Your task to perform on an android device: manage bookmarks in the chrome app Image 0: 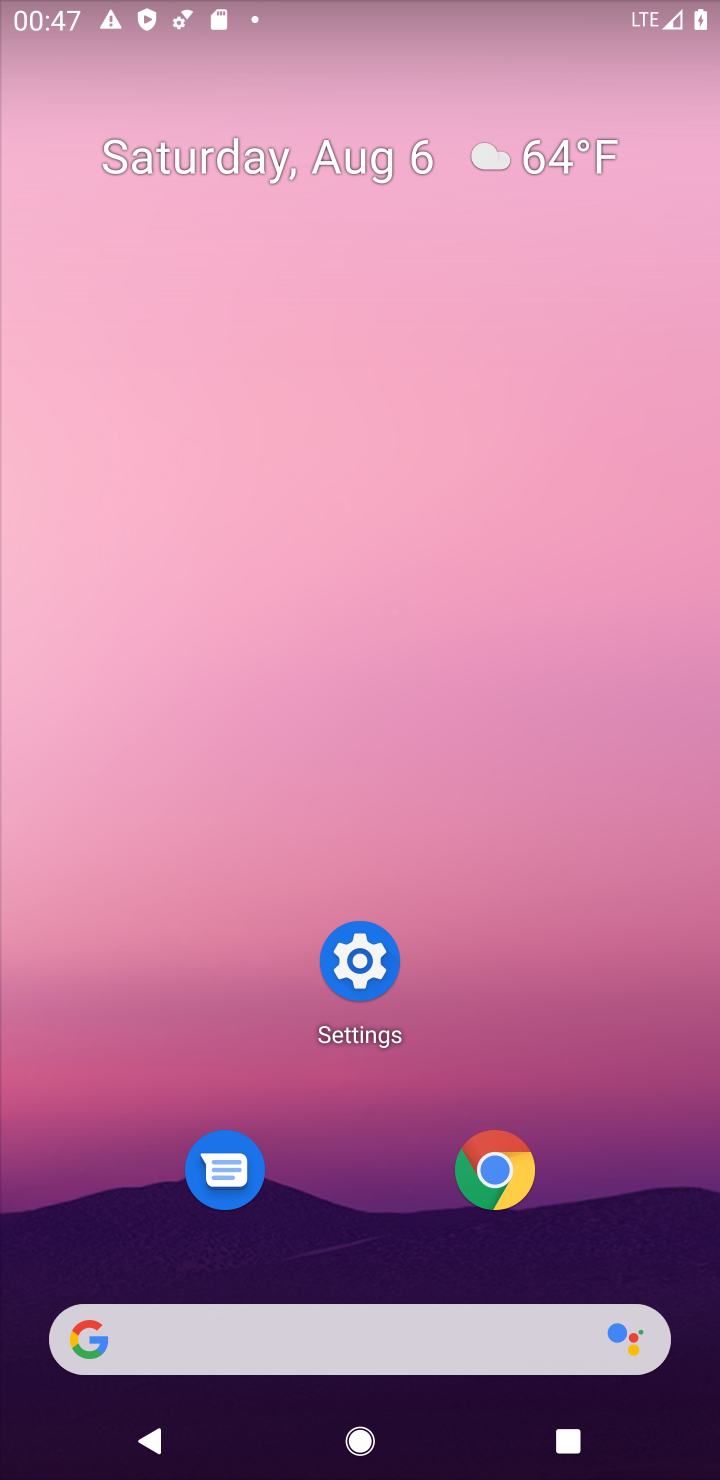
Step 0: click (504, 1177)
Your task to perform on an android device: manage bookmarks in the chrome app Image 1: 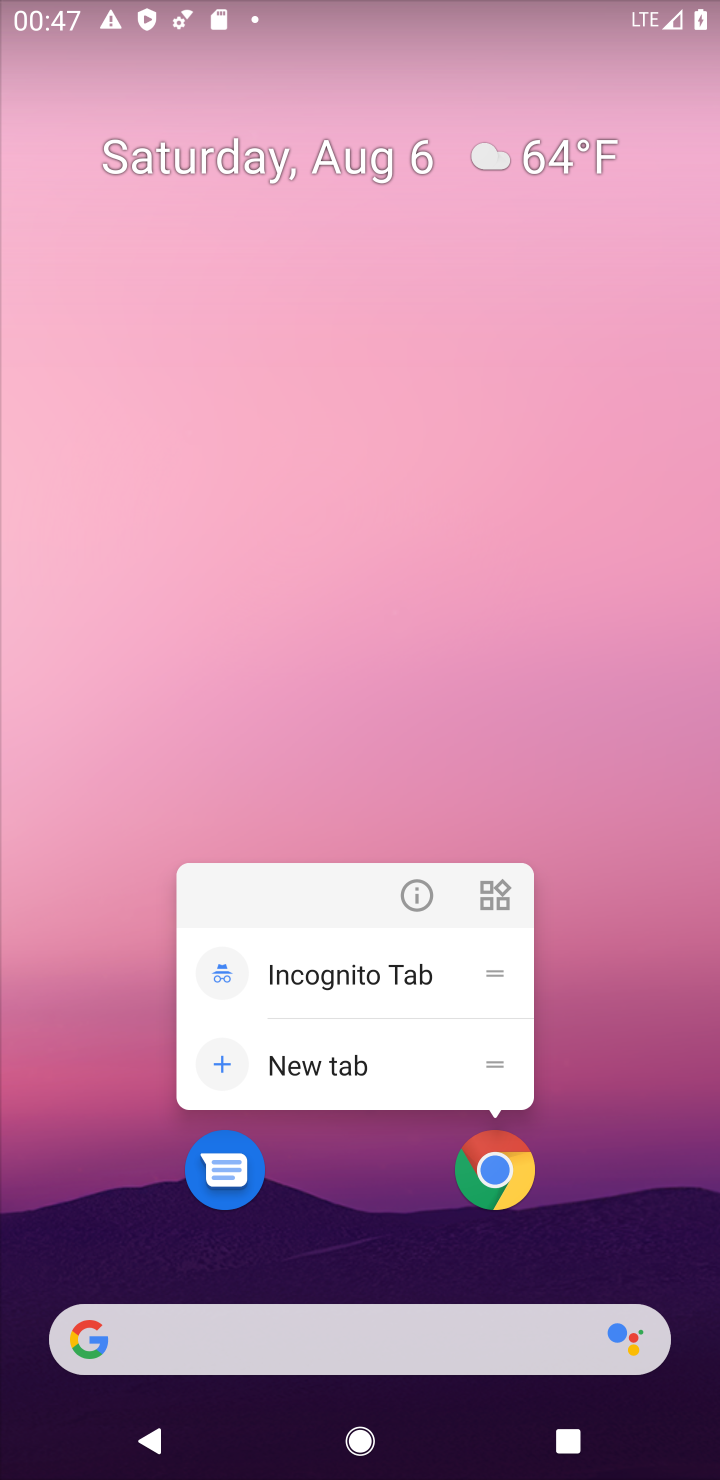
Step 1: click (484, 1164)
Your task to perform on an android device: manage bookmarks in the chrome app Image 2: 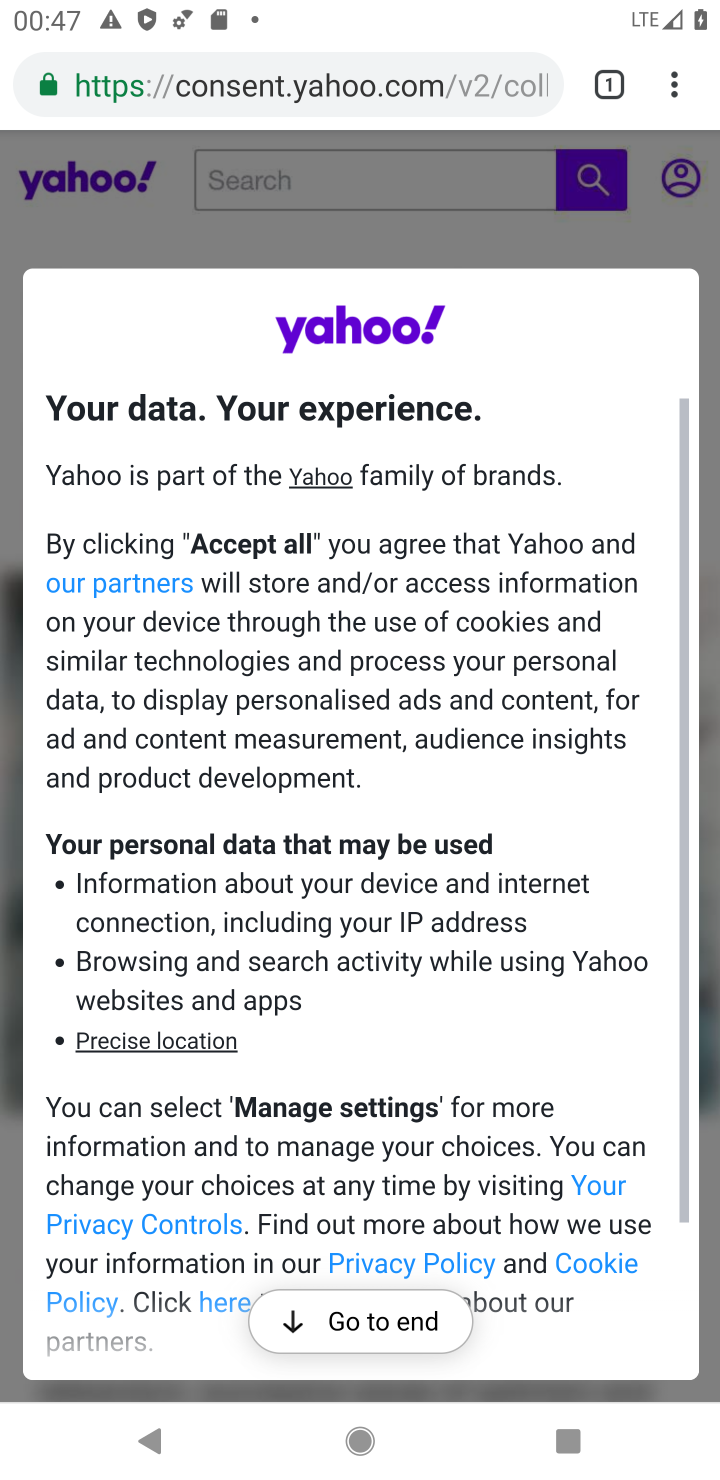
Step 2: click (671, 81)
Your task to perform on an android device: manage bookmarks in the chrome app Image 3: 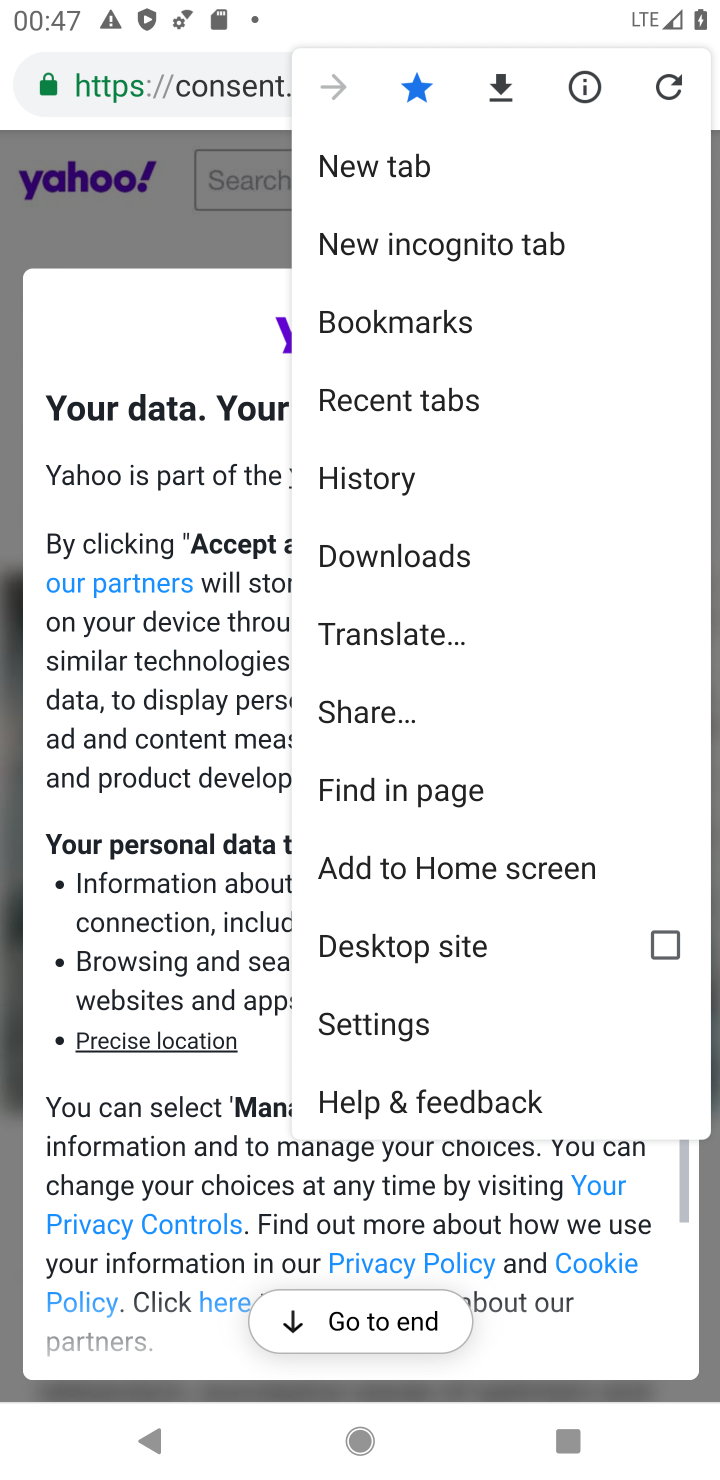
Step 3: click (490, 311)
Your task to perform on an android device: manage bookmarks in the chrome app Image 4: 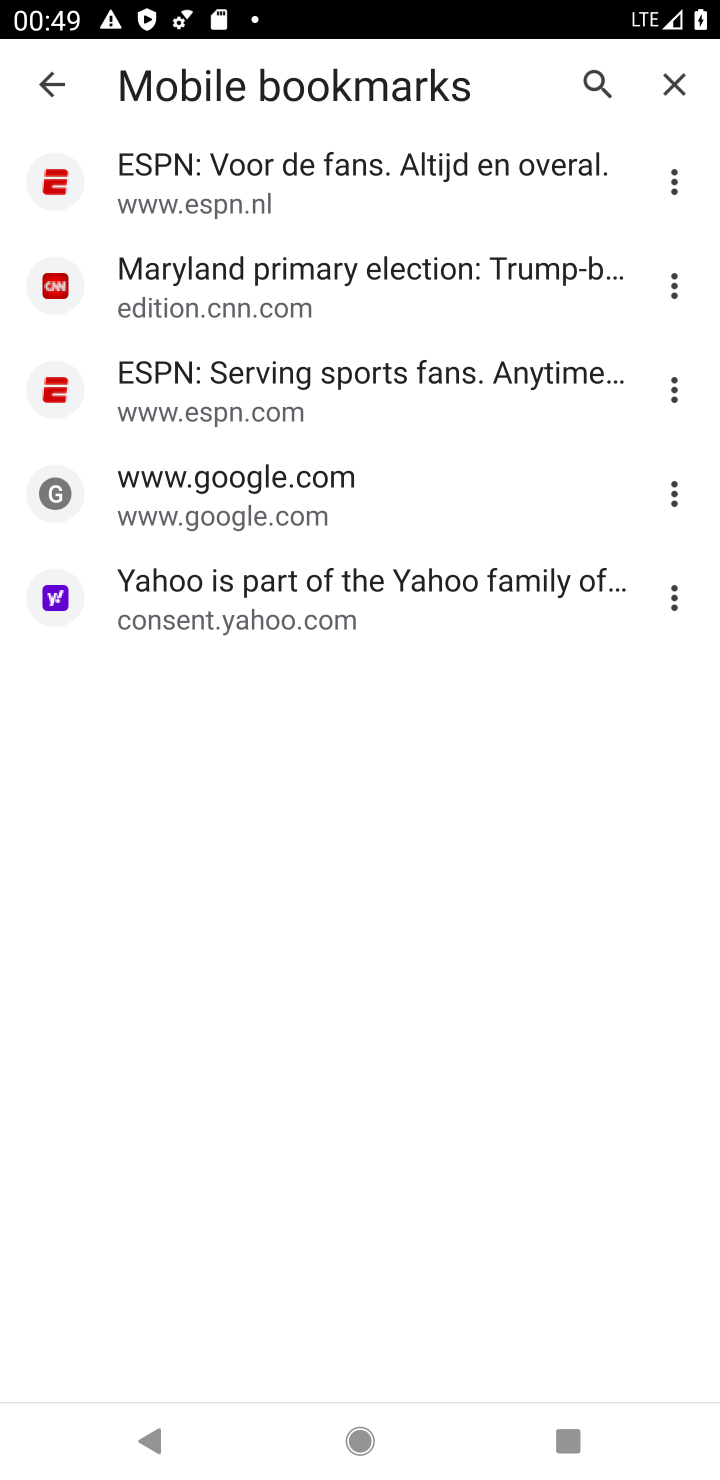
Step 4: task complete